Your task to perform on an android device: Go to sound settings Image 0: 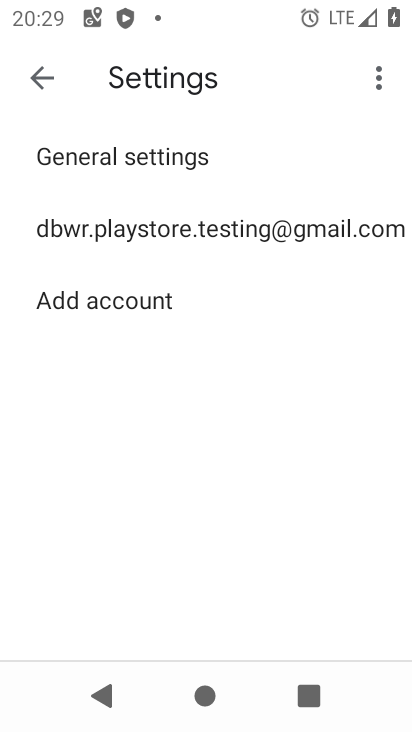
Step 0: press home button
Your task to perform on an android device: Go to sound settings Image 1: 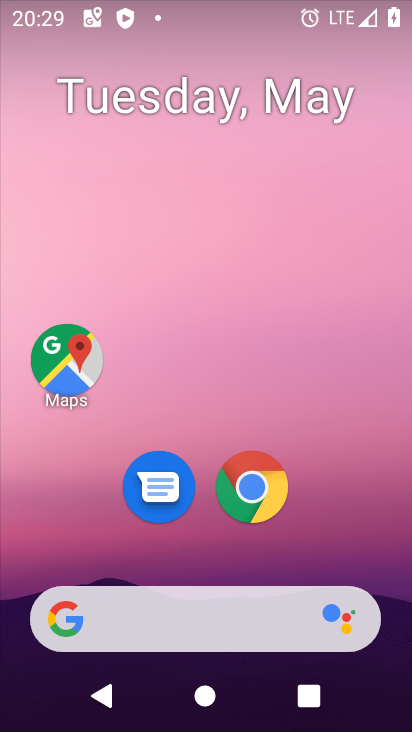
Step 1: drag from (336, 520) to (233, 1)
Your task to perform on an android device: Go to sound settings Image 2: 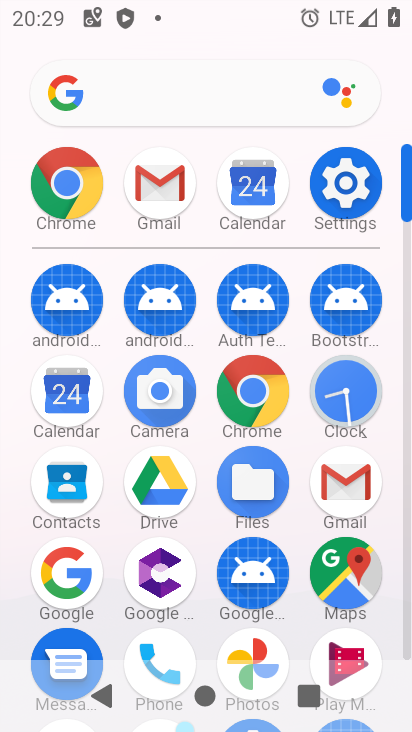
Step 2: click (347, 180)
Your task to perform on an android device: Go to sound settings Image 3: 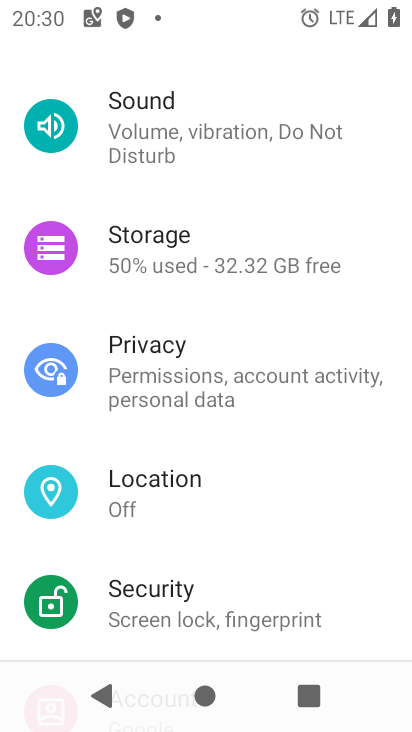
Step 3: click (150, 102)
Your task to perform on an android device: Go to sound settings Image 4: 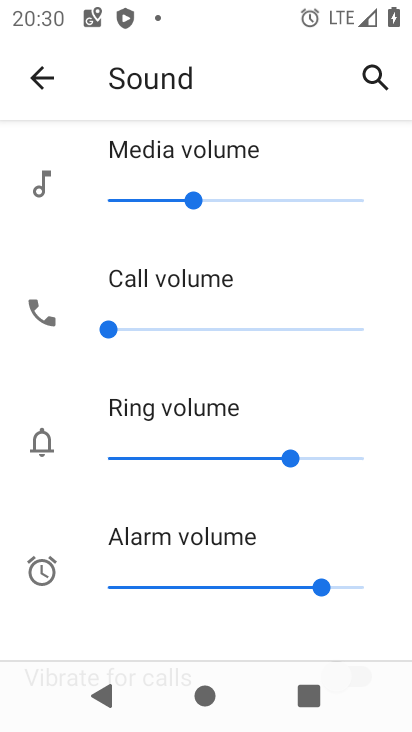
Step 4: task complete